Your task to perform on an android device: Toggle the flashlight Image 0: 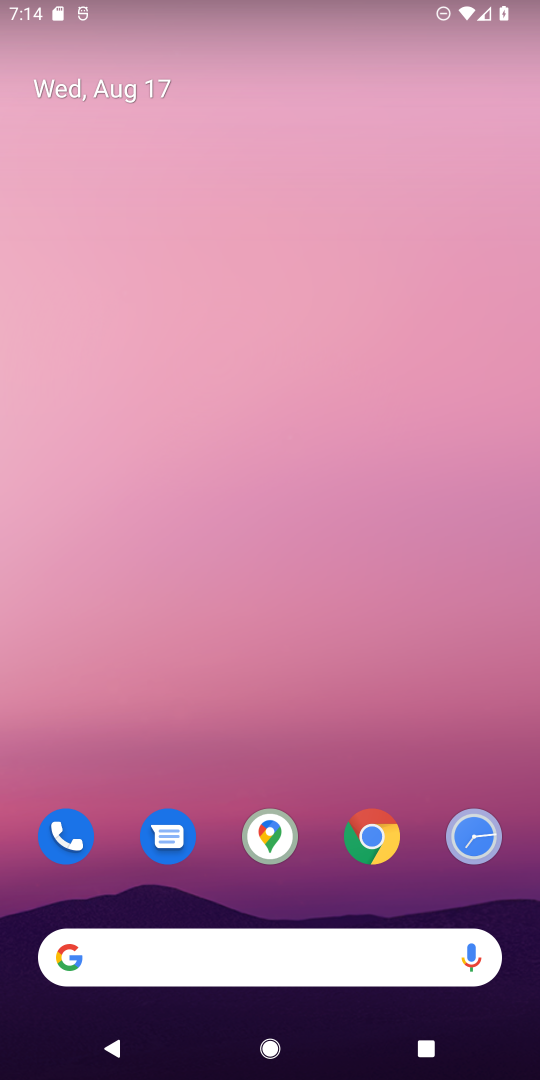
Step 0: drag from (189, 901) to (185, 264)
Your task to perform on an android device: Toggle the flashlight Image 1: 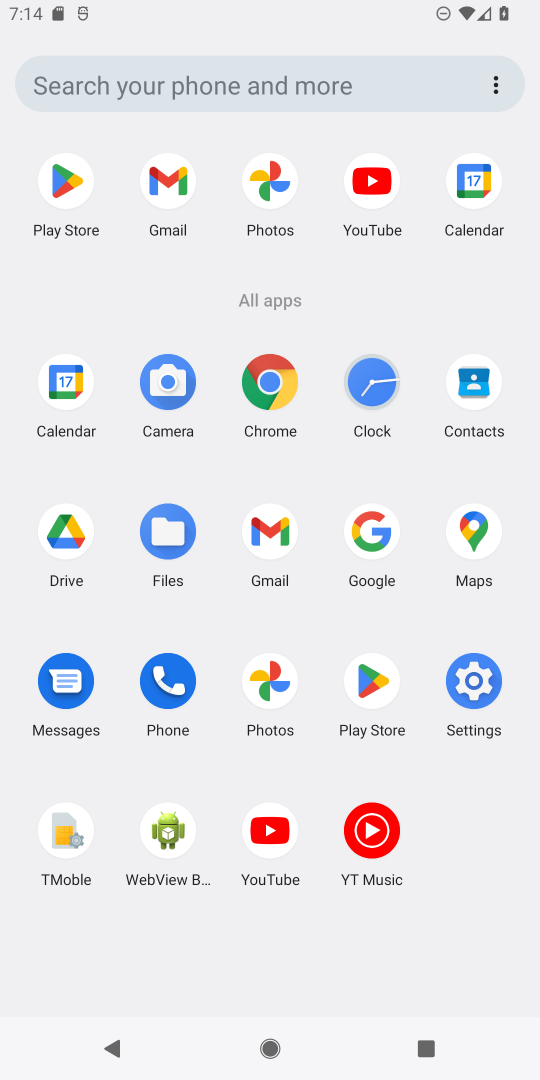
Step 1: click (481, 696)
Your task to perform on an android device: Toggle the flashlight Image 2: 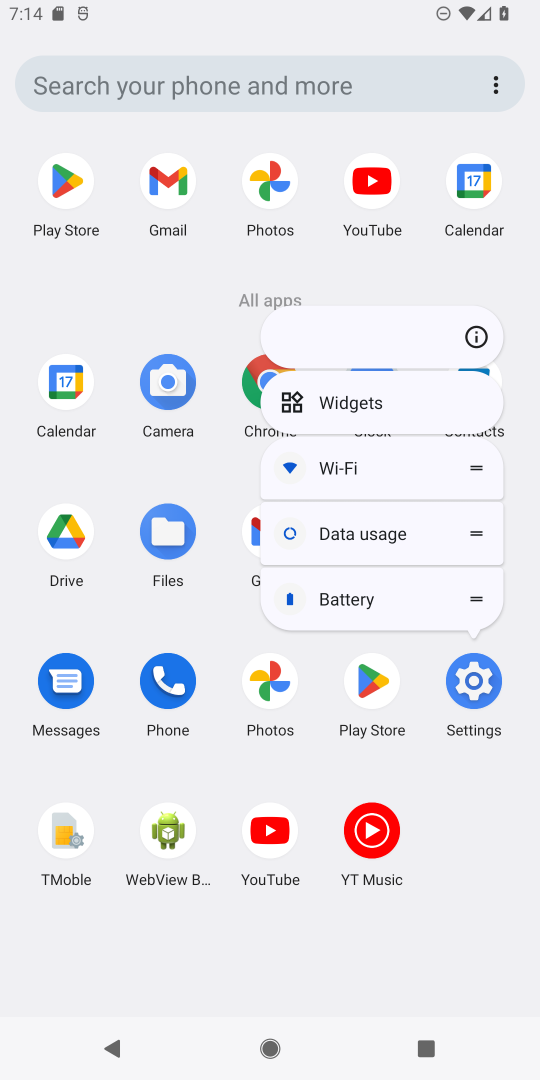
Step 2: click (481, 696)
Your task to perform on an android device: Toggle the flashlight Image 3: 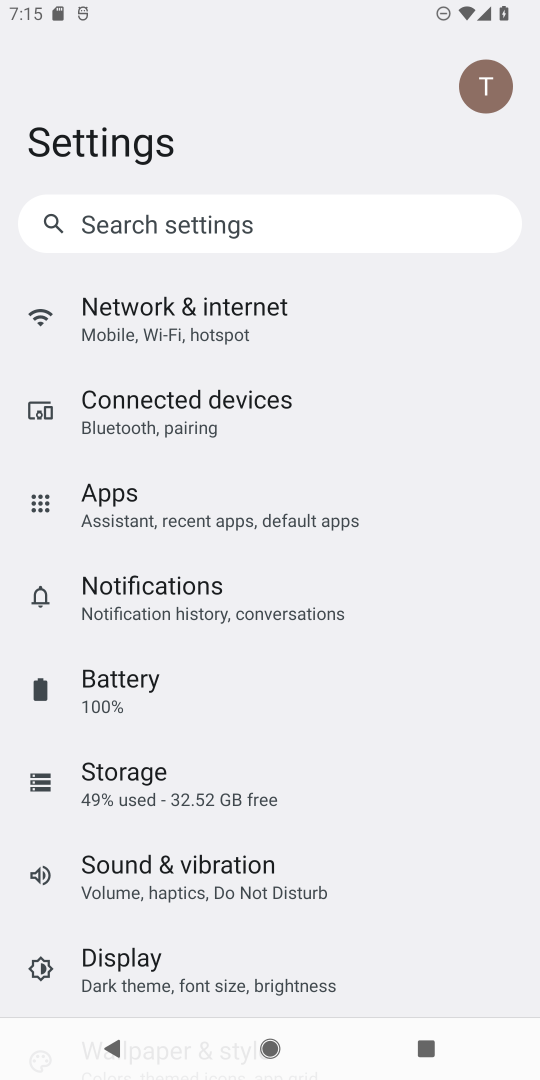
Step 3: task complete